Your task to perform on an android device: Go to Google Image 0: 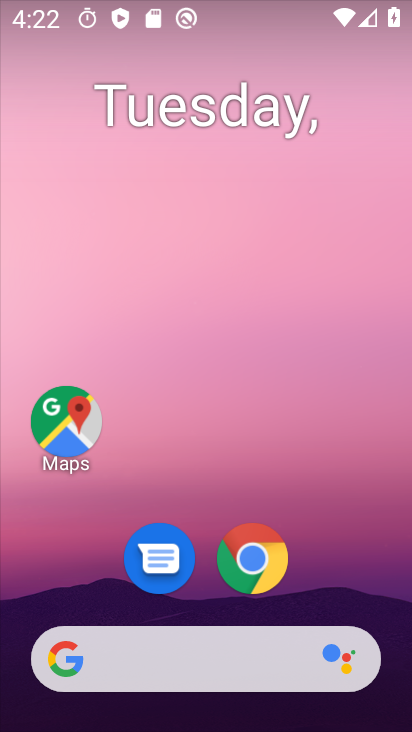
Step 0: drag from (176, 500) to (107, 162)
Your task to perform on an android device: Go to Google Image 1: 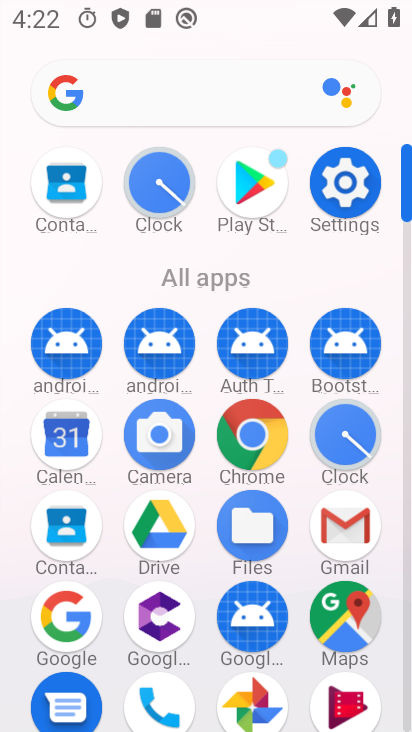
Step 1: click (74, 626)
Your task to perform on an android device: Go to Google Image 2: 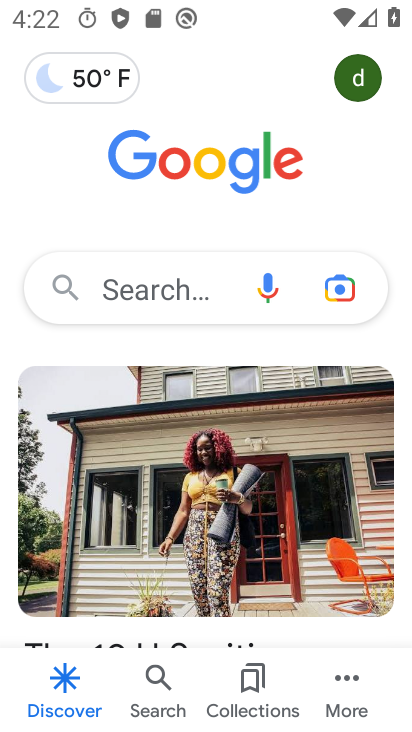
Step 2: task complete